Your task to perform on an android device: turn off location Image 0: 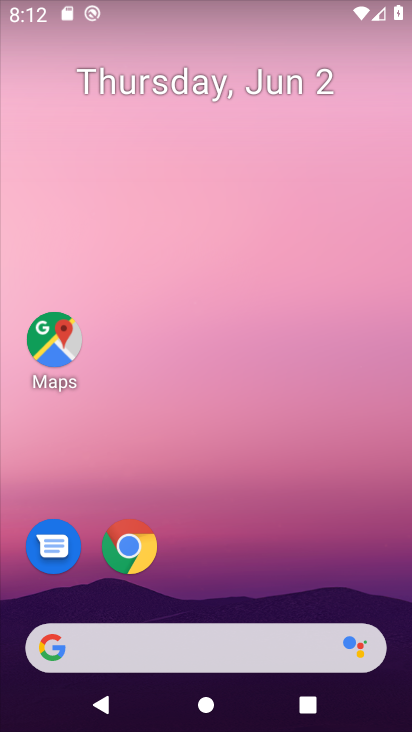
Step 0: drag from (220, 688) to (172, 170)
Your task to perform on an android device: turn off location Image 1: 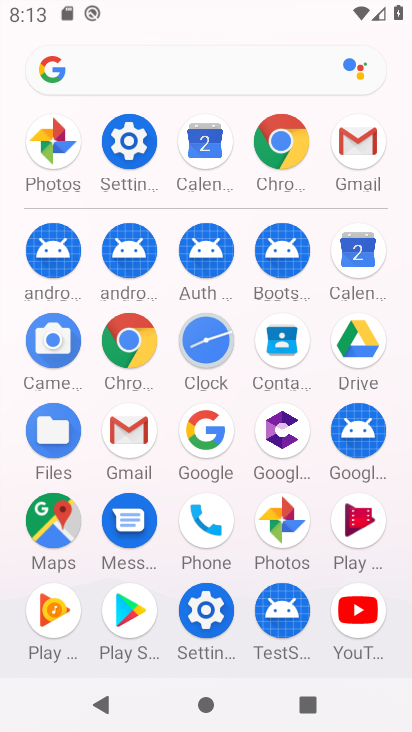
Step 1: click (134, 139)
Your task to perform on an android device: turn off location Image 2: 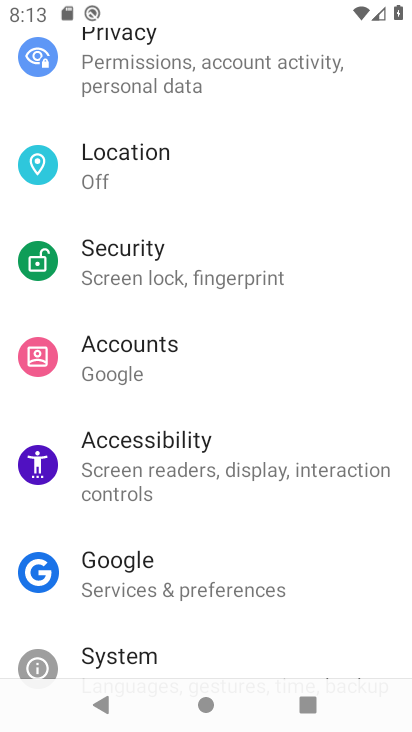
Step 2: click (122, 153)
Your task to perform on an android device: turn off location Image 3: 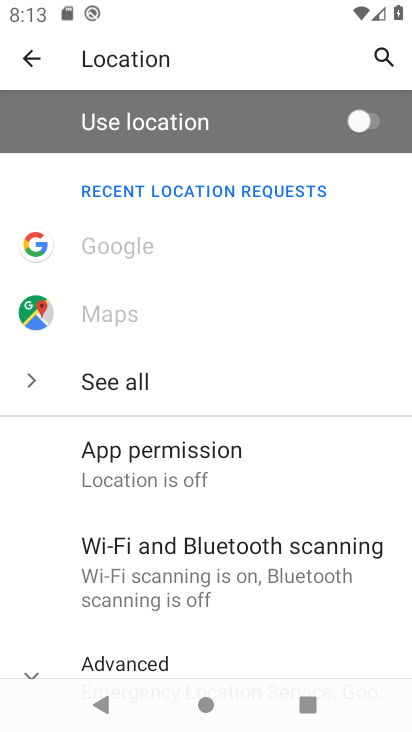
Step 3: task complete